Your task to perform on an android device: What's on my calendar today? Image 0: 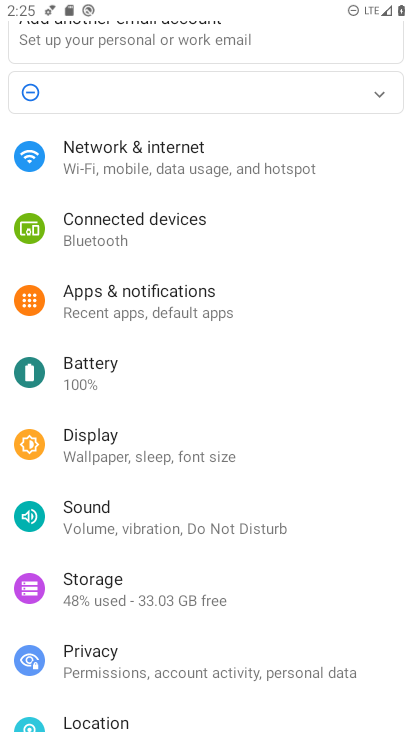
Step 0: press home button
Your task to perform on an android device: What's on my calendar today? Image 1: 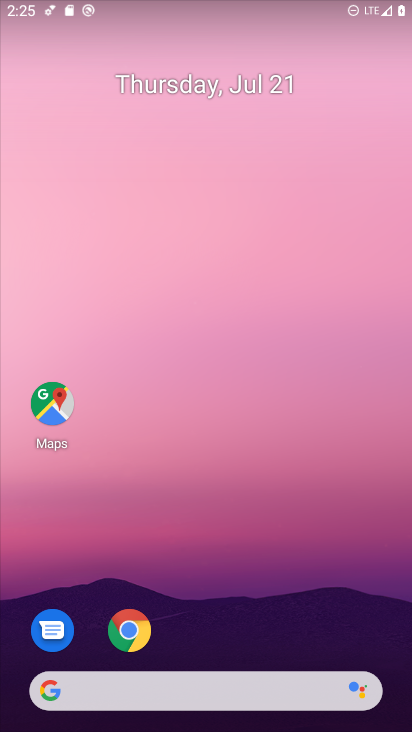
Step 1: click (383, 502)
Your task to perform on an android device: What's on my calendar today? Image 2: 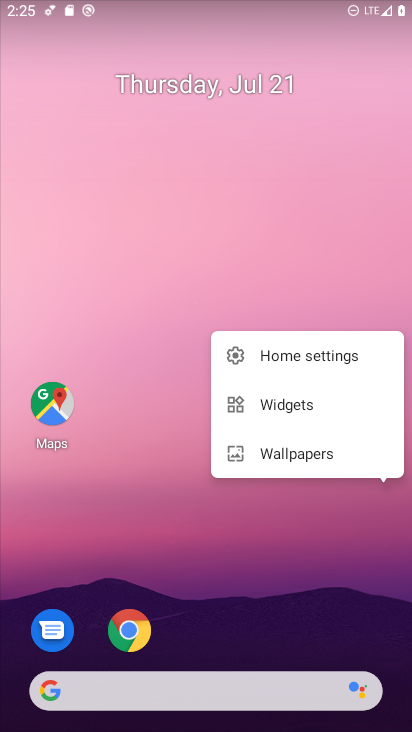
Step 2: click (376, 511)
Your task to perform on an android device: What's on my calendar today? Image 3: 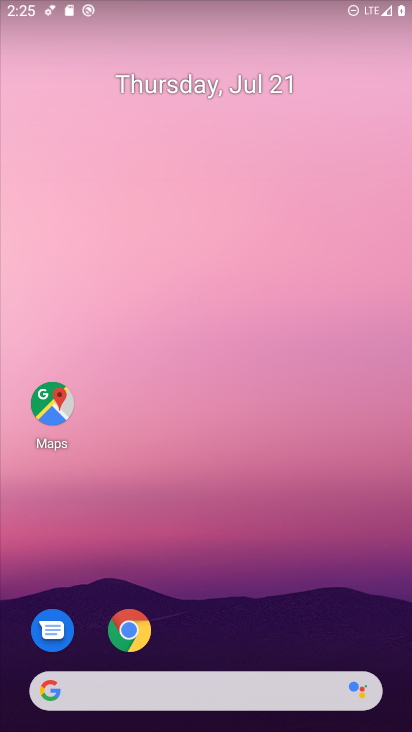
Step 3: drag from (373, 542) to (331, 586)
Your task to perform on an android device: What's on my calendar today? Image 4: 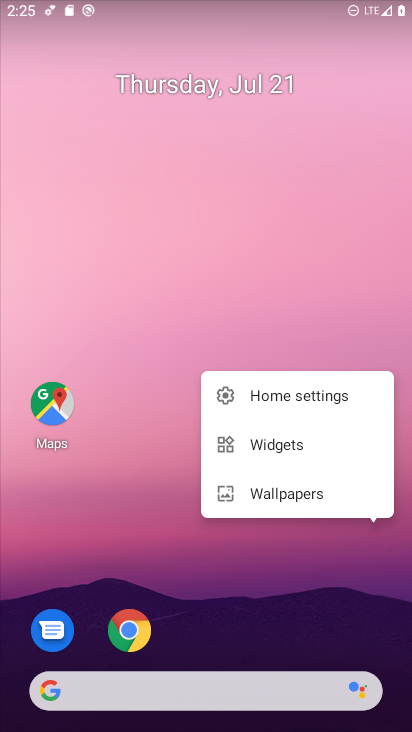
Step 4: click (331, 586)
Your task to perform on an android device: What's on my calendar today? Image 5: 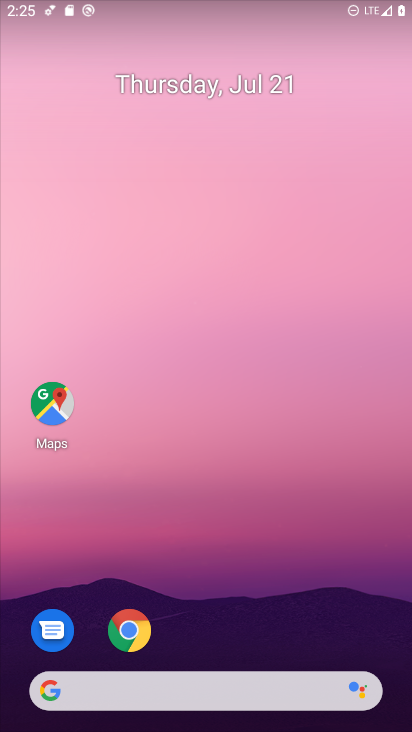
Step 5: drag from (271, 579) to (284, 95)
Your task to perform on an android device: What's on my calendar today? Image 6: 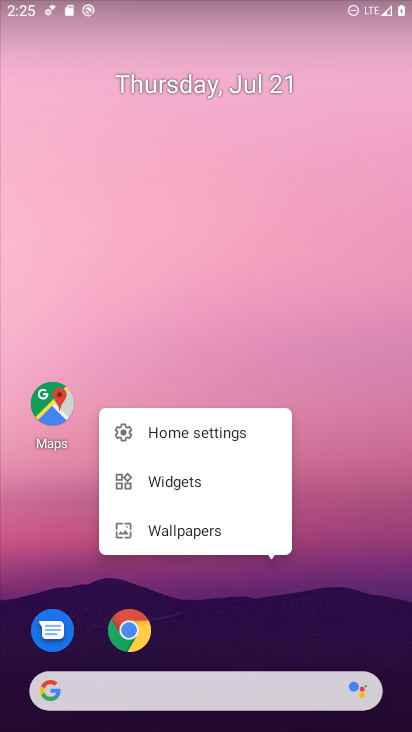
Step 6: click (253, 326)
Your task to perform on an android device: What's on my calendar today? Image 7: 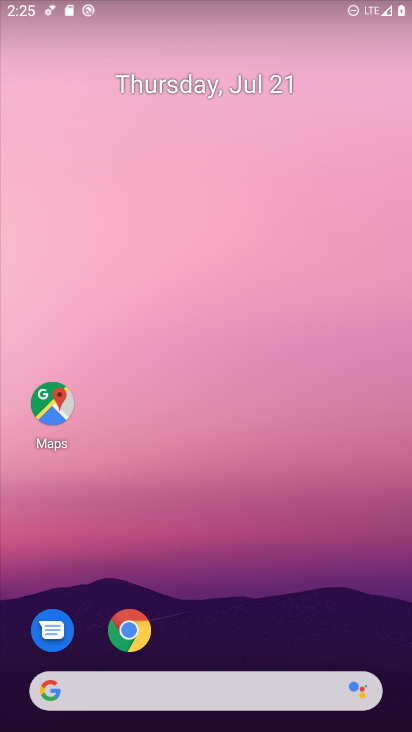
Step 7: drag from (310, 557) to (342, 5)
Your task to perform on an android device: What's on my calendar today? Image 8: 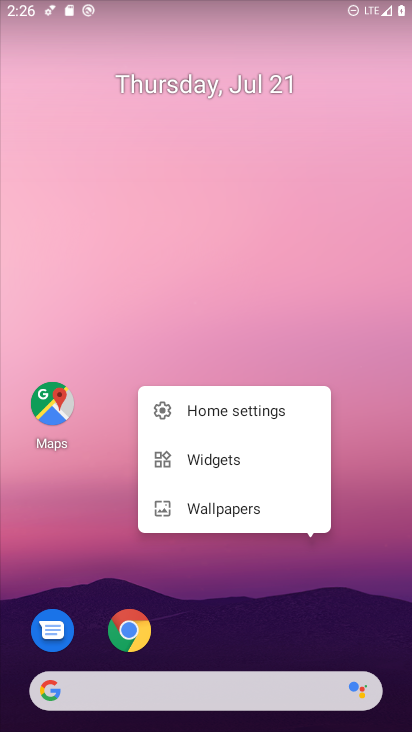
Step 8: click (351, 443)
Your task to perform on an android device: What's on my calendar today? Image 9: 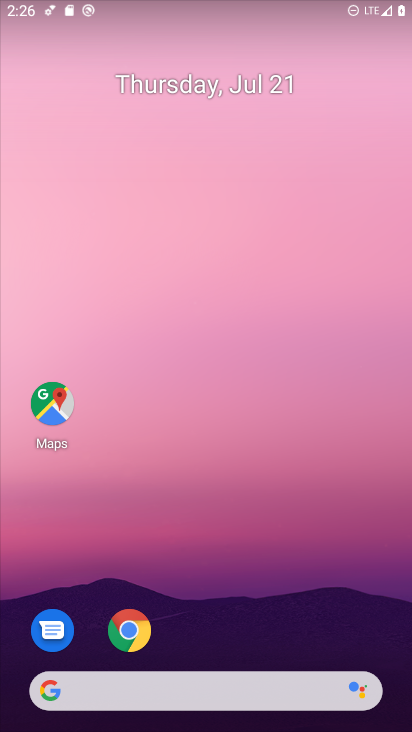
Step 9: drag from (287, 611) to (231, 184)
Your task to perform on an android device: What's on my calendar today? Image 10: 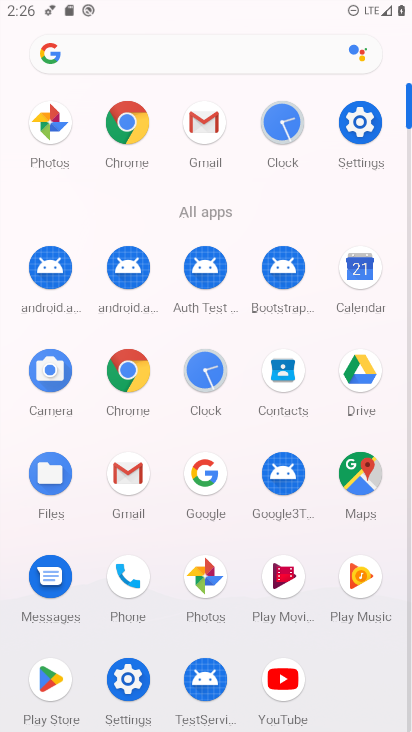
Step 10: drag from (302, 619) to (315, 239)
Your task to perform on an android device: What's on my calendar today? Image 11: 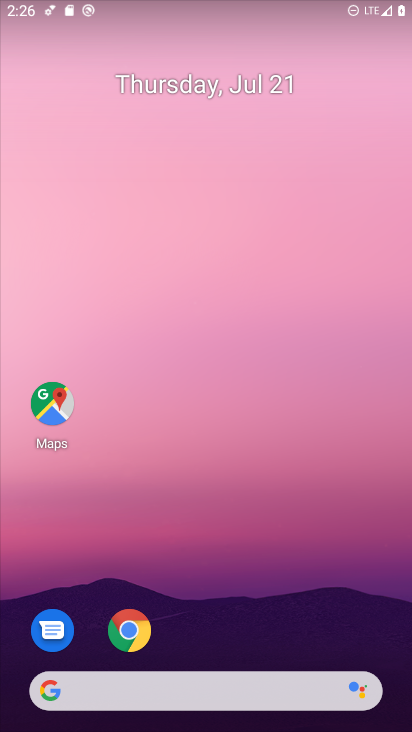
Step 11: drag from (277, 479) to (334, 26)
Your task to perform on an android device: What's on my calendar today? Image 12: 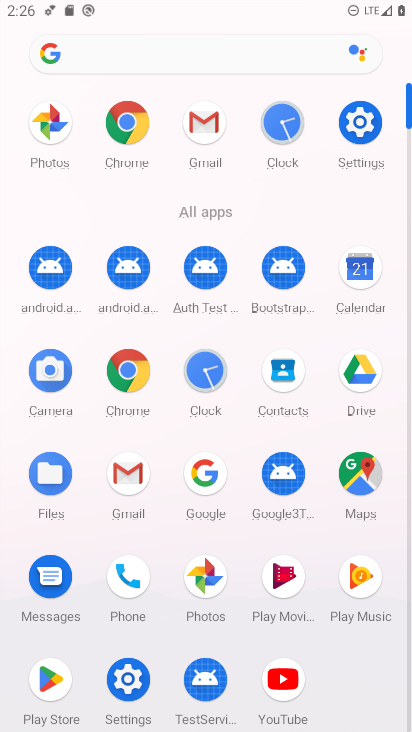
Step 12: click (355, 260)
Your task to perform on an android device: What's on my calendar today? Image 13: 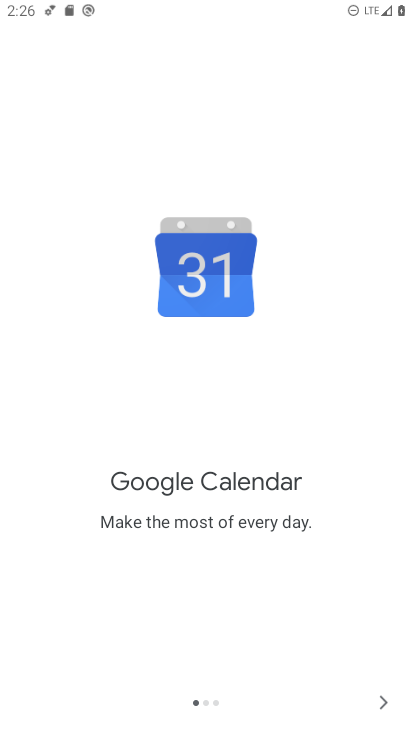
Step 13: click (378, 706)
Your task to perform on an android device: What's on my calendar today? Image 14: 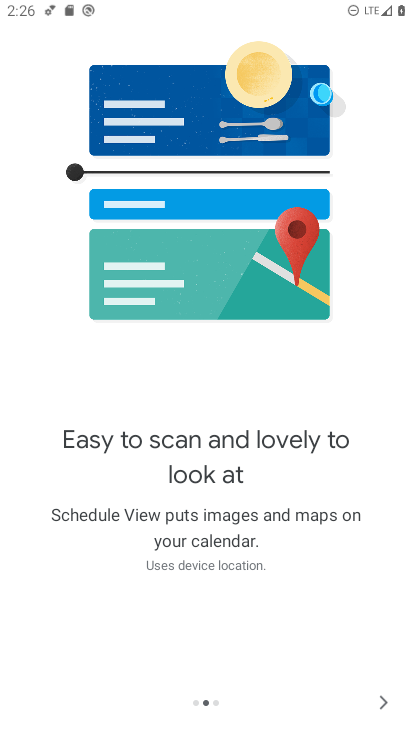
Step 14: click (378, 706)
Your task to perform on an android device: What's on my calendar today? Image 15: 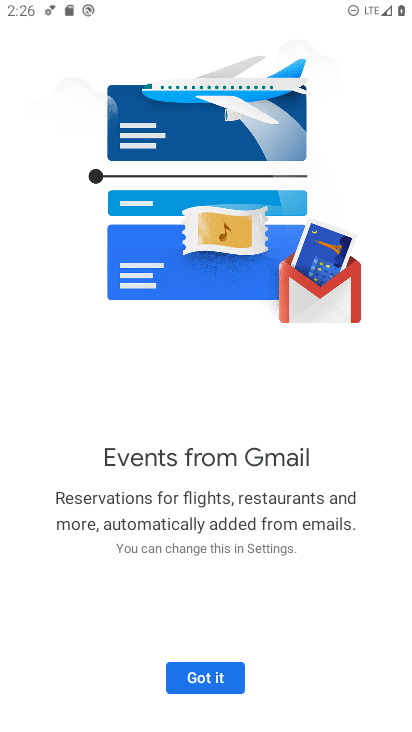
Step 15: click (187, 683)
Your task to perform on an android device: What's on my calendar today? Image 16: 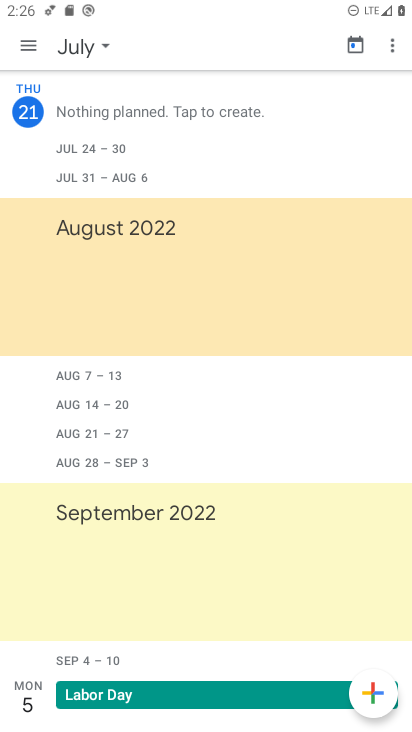
Step 16: click (26, 49)
Your task to perform on an android device: What's on my calendar today? Image 17: 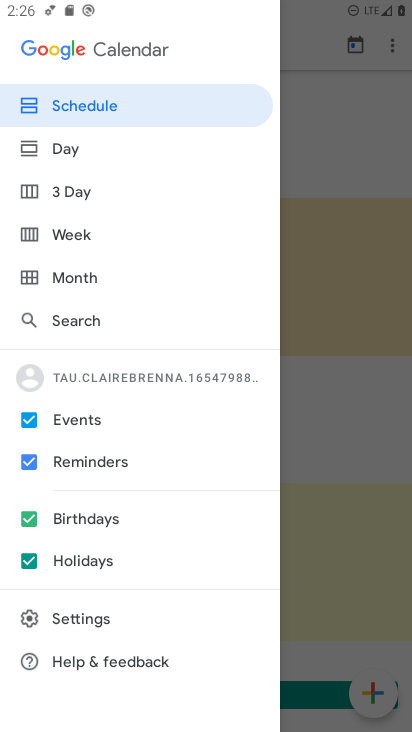
Step 17: click (69, 155)
Your task to perform on an android device: What's on my calendar today? Image 18: 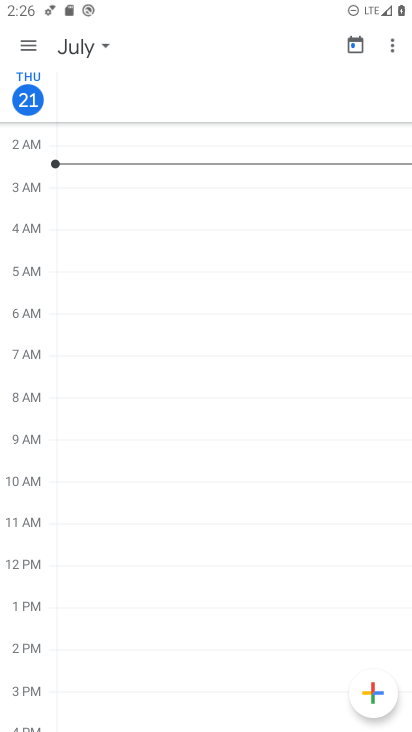
Step 18: task complete